Your task to perform on an android device: turn on the 12-hour format for clock Image 0: 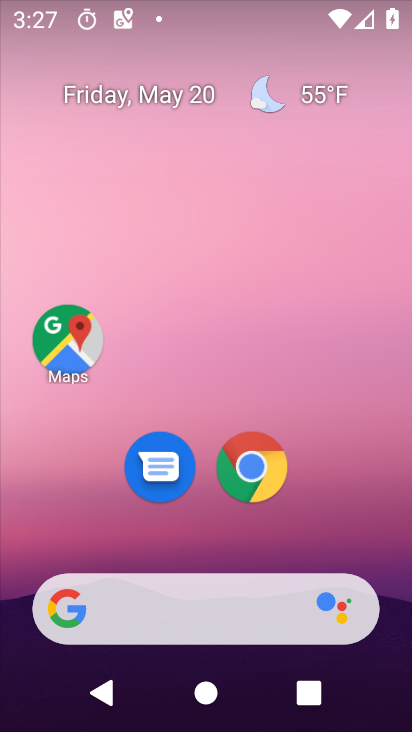
Step 0: drag from (232, 533) to (215, 68)
Your task to perform on an android device: turn on the 12-hour format for clock Image 1: 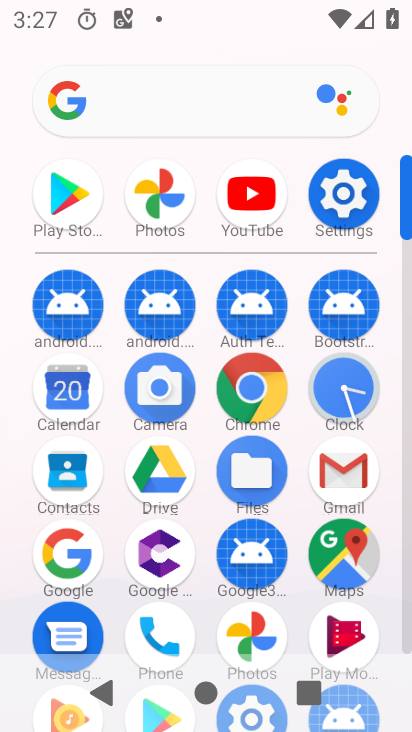
Step 1: click (346, 193)
Your task to perform on an android device: turn on the 12-hour format for clock Image 2: 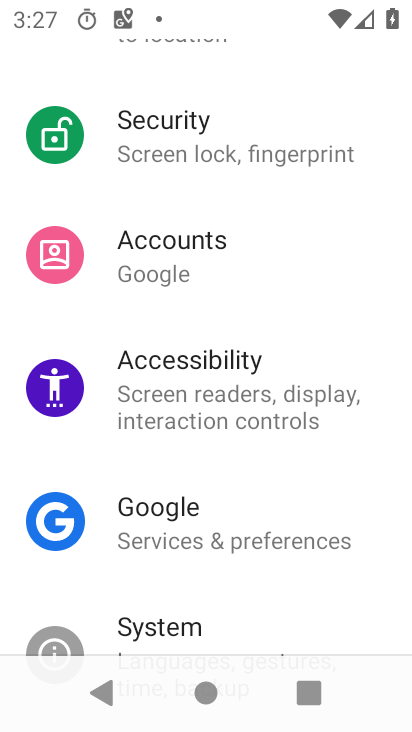
Step 2: drag from (154, 250) to (144, 113)
Your task to perform on an android device: turn on the 12-hour format for clock Image 3: 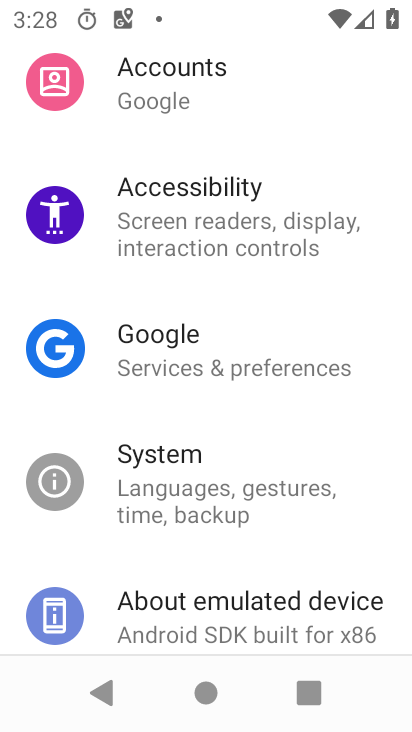
Step 3: click (198, 495)
Your task to perform on an android device: turn on the 12-hour format for clock Image 4: 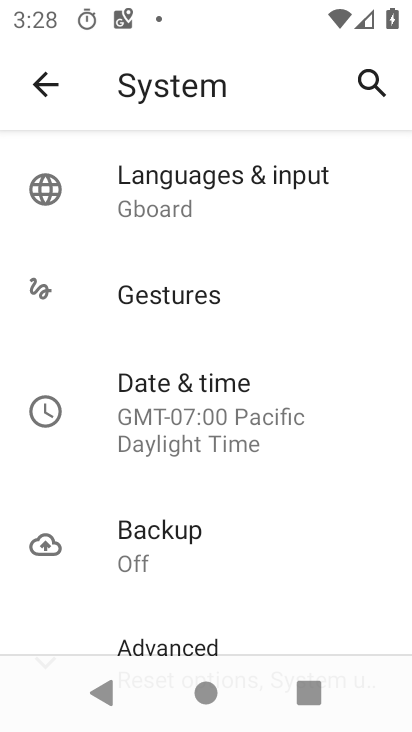
Step 4: click (167, 417)
Your task to perform on an android device: turn on the 12-hour format for clock Image 5: 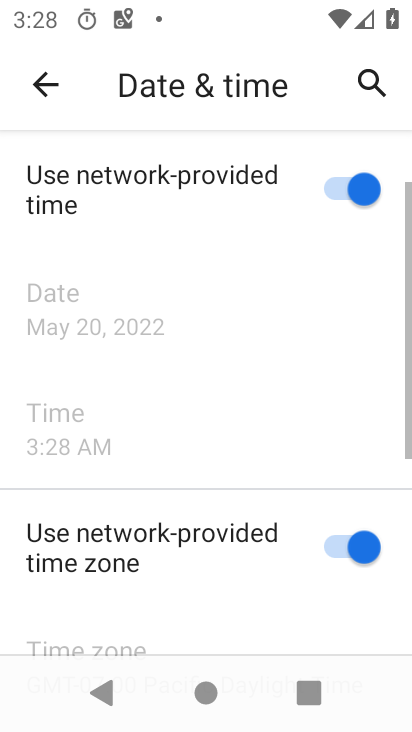
Step 5: task complete